Your task to perform on an android device: snooze an email in the gmail app Image 0: 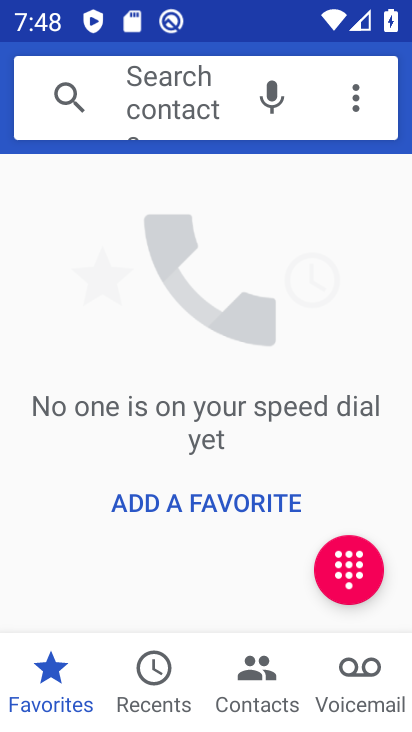
Step 0: press home button
Your task to perform on an android device: snooze an email in the gmail app Image 1: 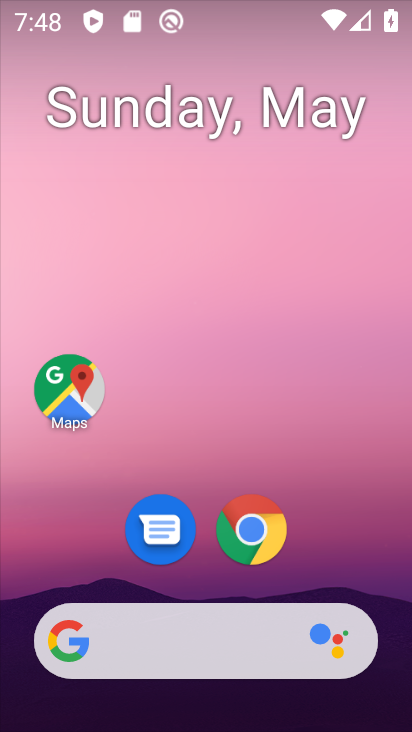
Step 1: drag from (376, 572) to (317, 63)
Your task to perform on an android device: snooze an email in the gmail app Image 2: 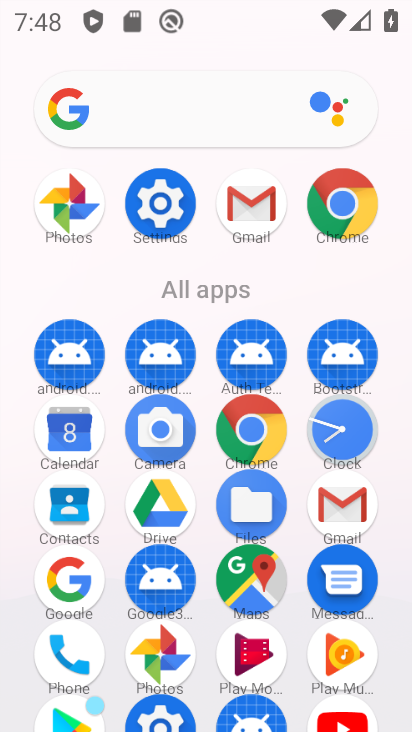
Step 2: click (247, 231)
Your task to perform on an android device: snooze an email in the gmail app Image 3: 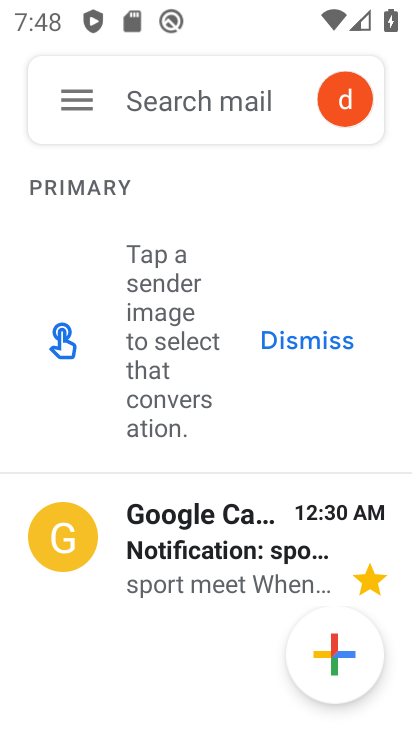
Step 3: click (73, 95)
Your task to perform on an android device: snooze an email in the gmail app Image 4: 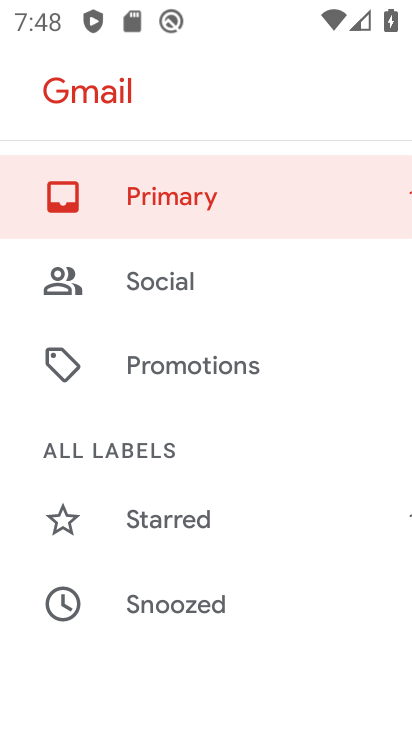
Step 4: click (274, 208)
Your task to perform on an android device: snooze an email in the gmail app Image 5: 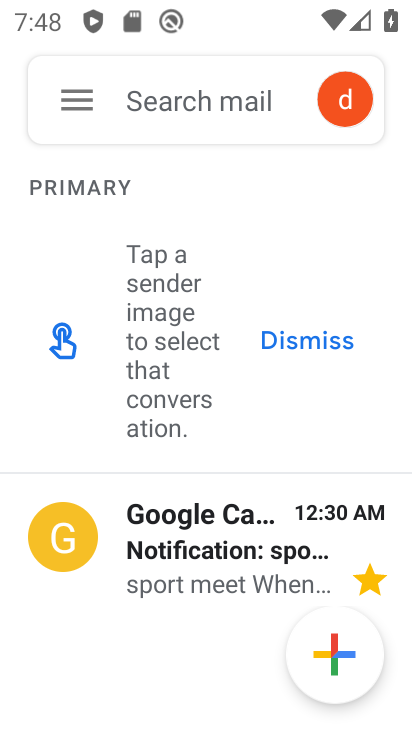
Step 5: drag from (231, 572) to (228, 280)
Your task to perform on an android device: snooze an email in the gmail app Image 6: 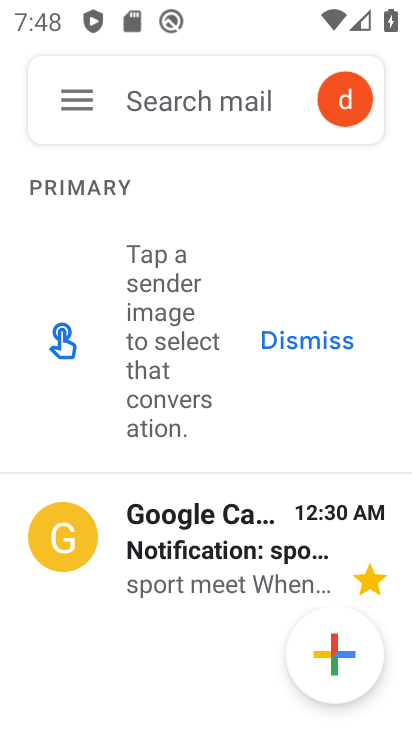
Step 6: click (228, 543)
Your task to perform on an android device: snooze an email in the gmail app Image 7: 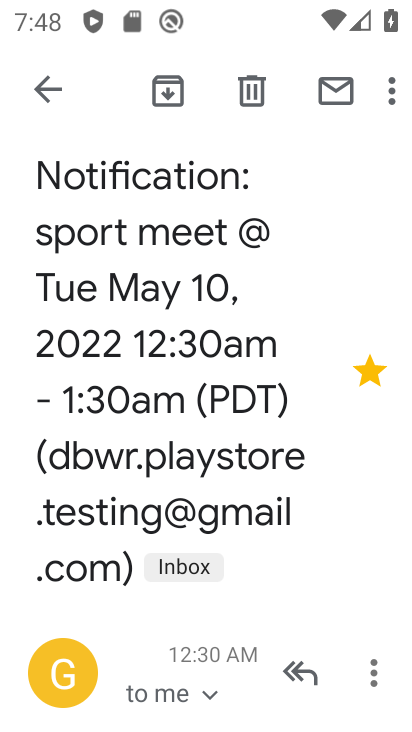
Step 7: click (393, 87)
Your task to perform on an android device: snooze an email in the gmail app Image 8: 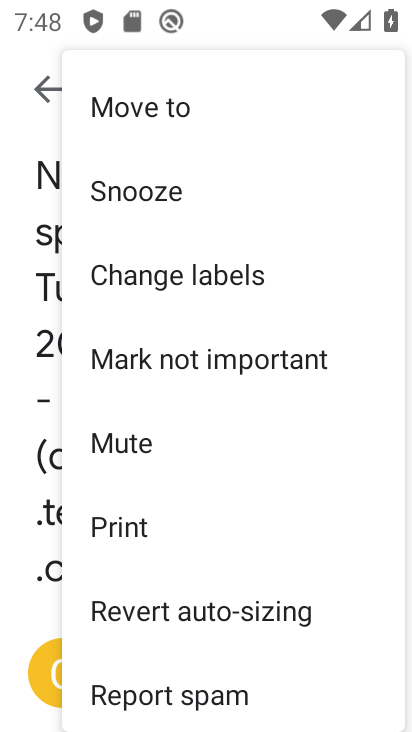
Step 8: click (196, 189)
Your task to perform on an android device: snooze an email in the gmail app Image 9: 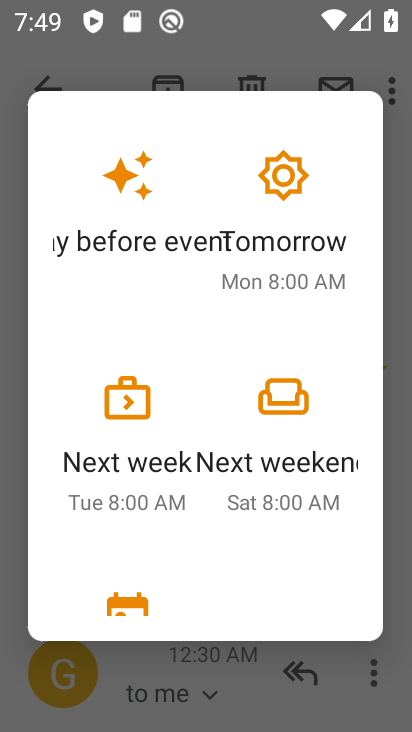
Step 9: click (264, 238)
Your task to perform on an android device: snooze an email in the gmail app Image 10: 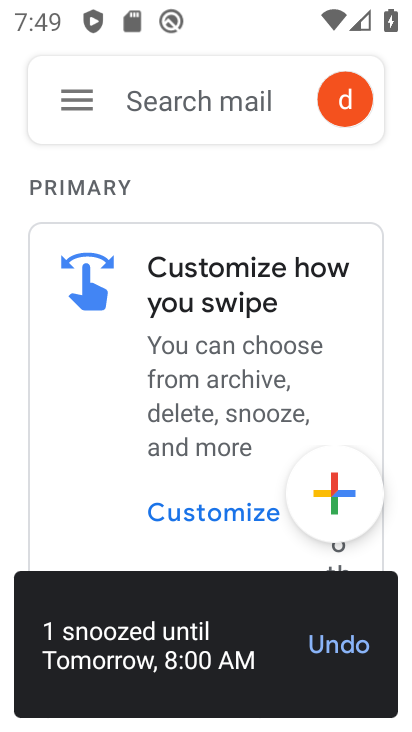
Step 10: task complete